Your task to perform on an android device: empty trash in google photos Image 0: 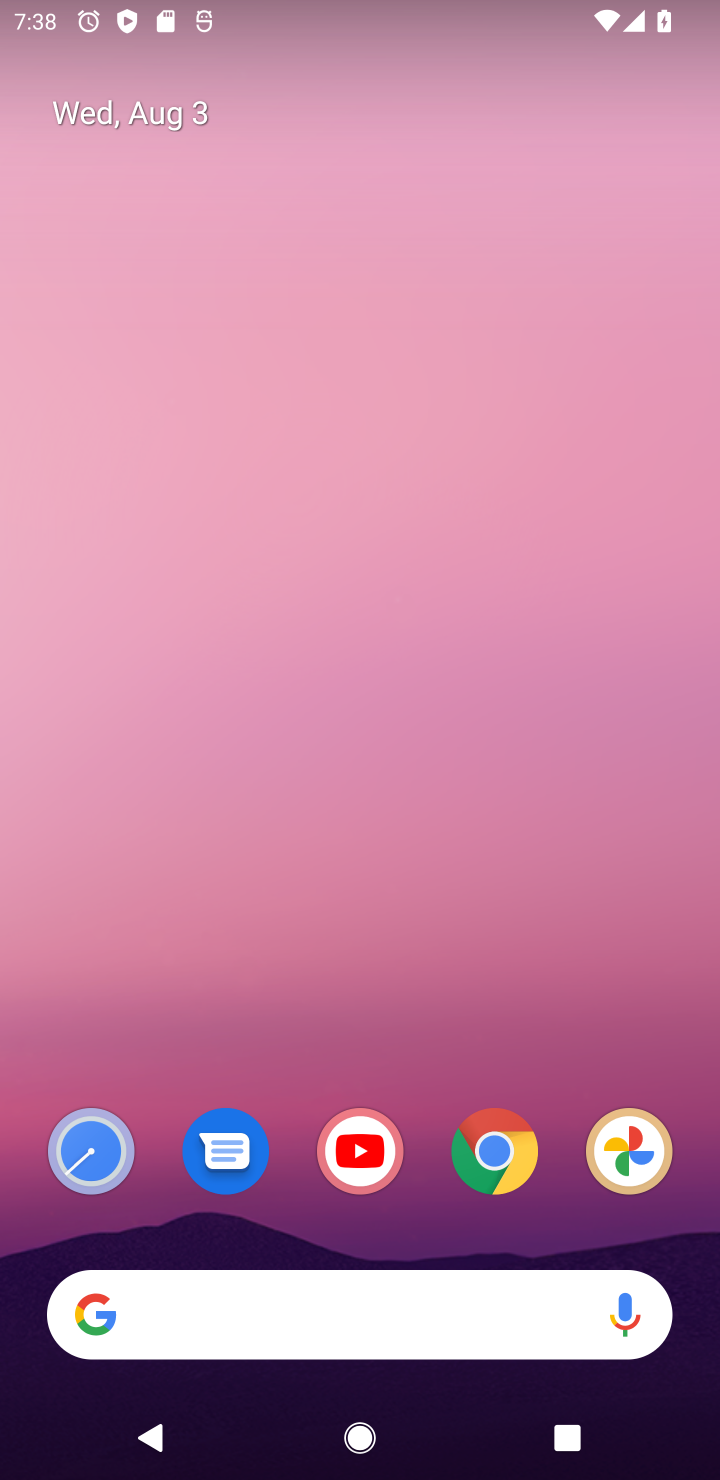
Step 0: click (635, 1159)
Your task to perform on an android device: empty trash in google photos Image 1: 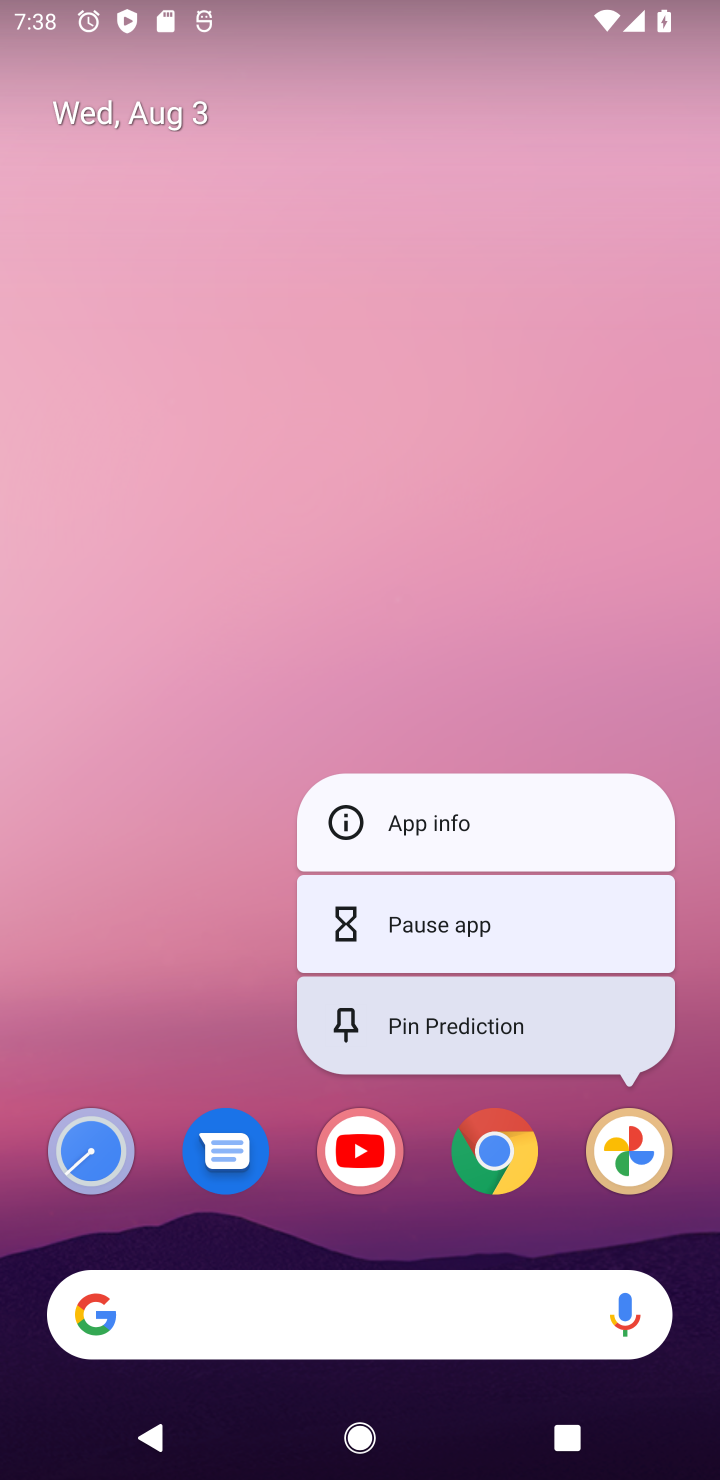
Step 1: click (643, 1141)
Your task to perform on an android device: empty trash in google photos Image 2: 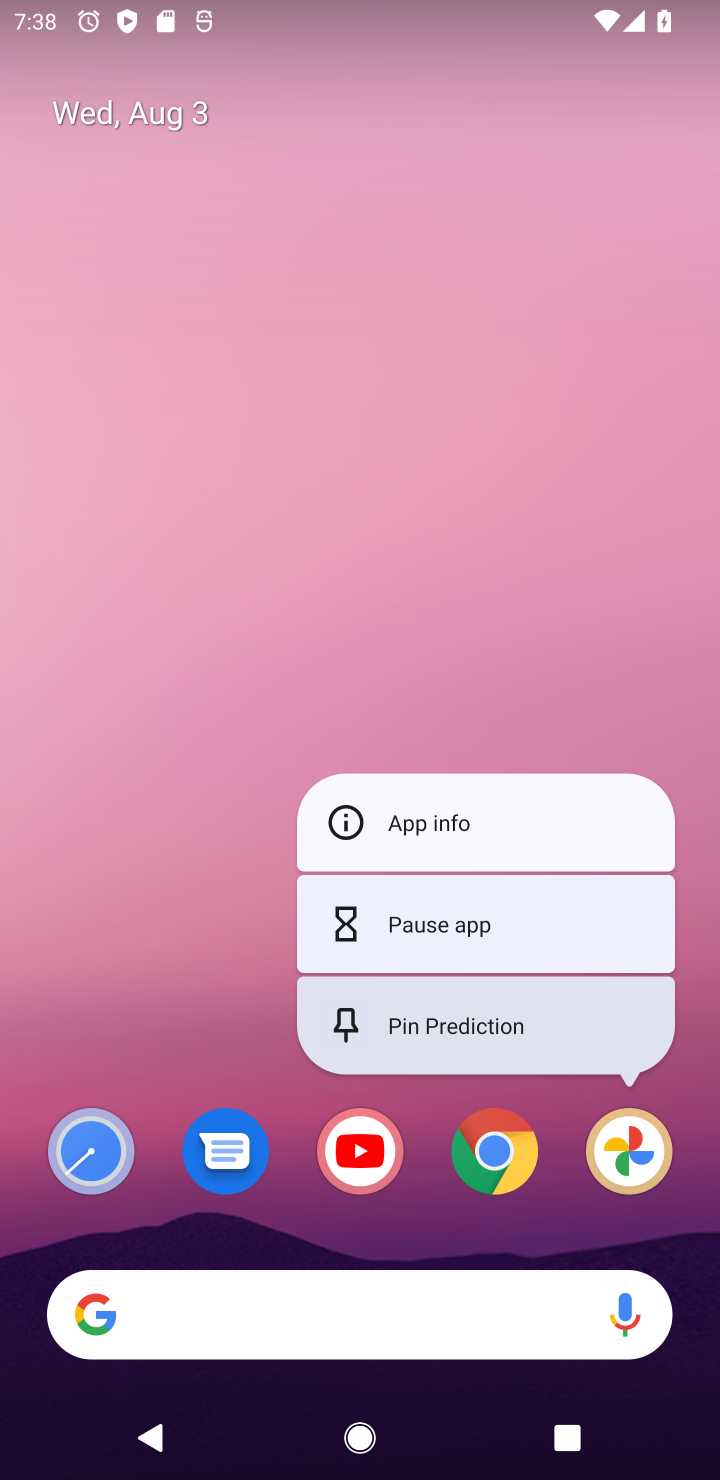
Step 2: click (646, 1139)
Your task to perform on an android device: empty trash in google photos Image 3: 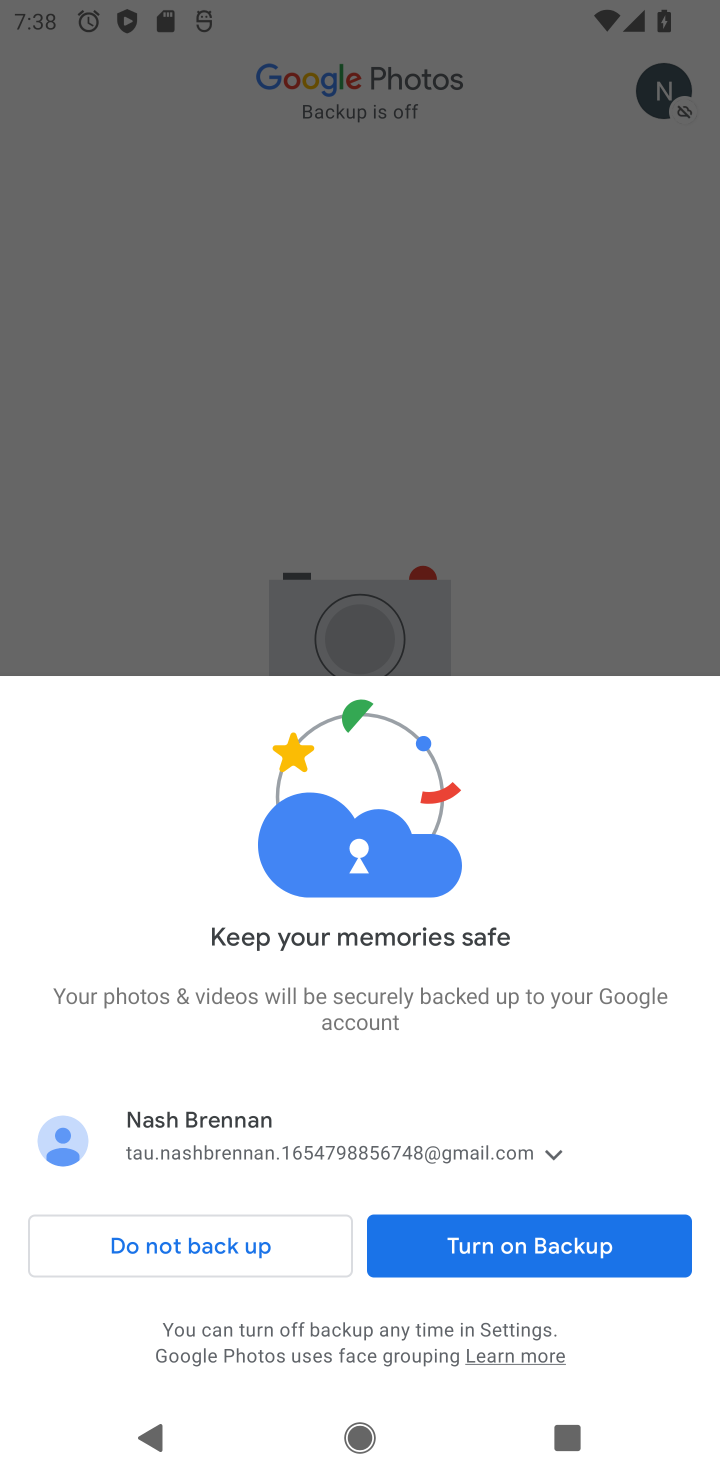
Step 3: click (483, 1246)
Your task to perform on an android device: empty trash in google photos Image 4: 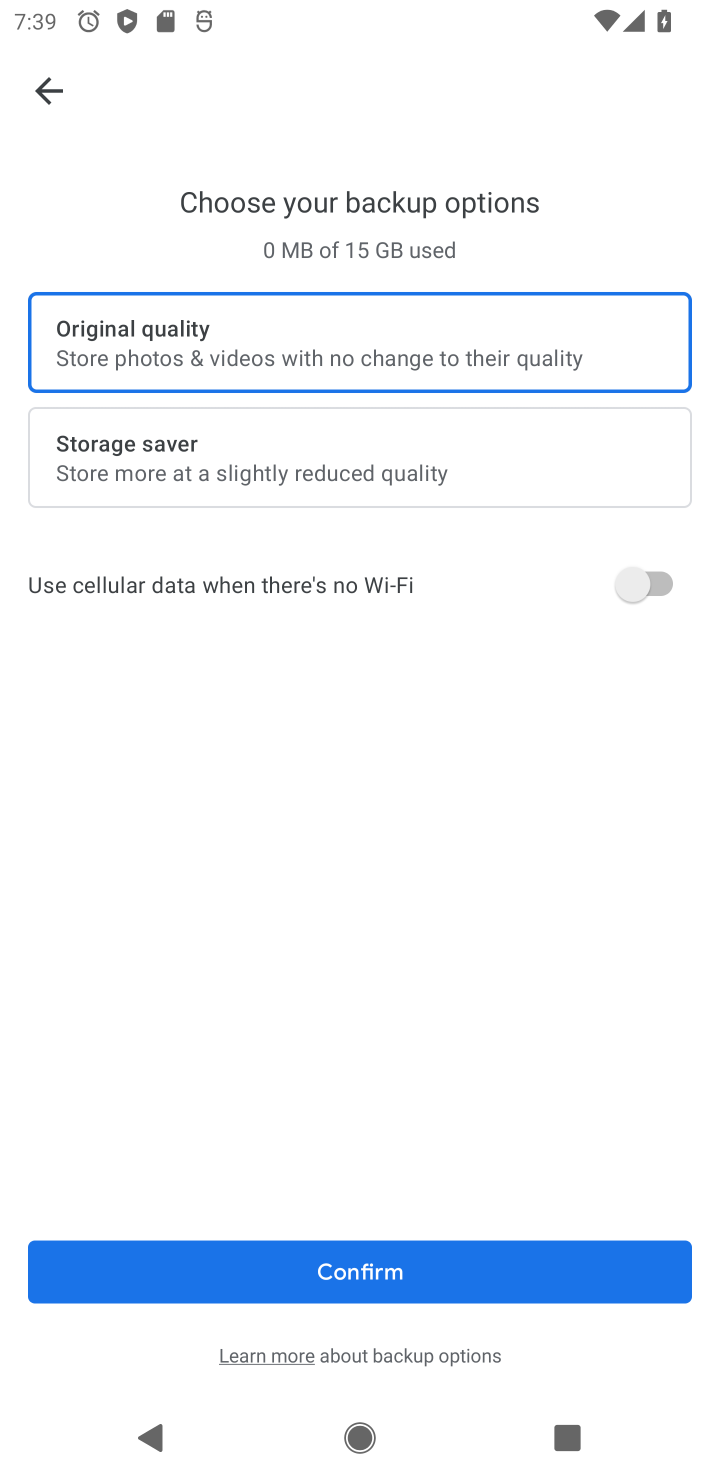
Step 4: click (375, 1280)
Your task to perform on an android device: empty trash in google photos Image 5: 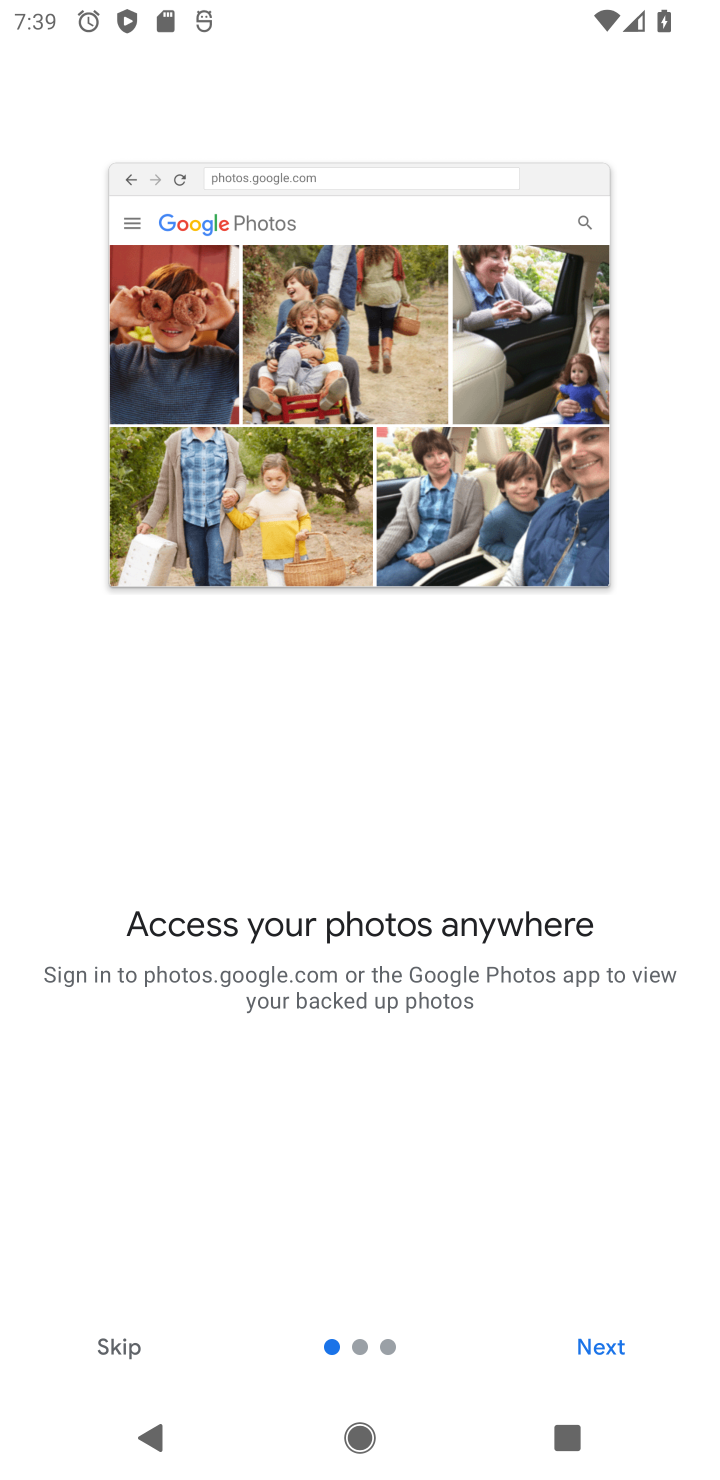
Step 5: click (603, 1343)
Your task to perform on an android device: empty trash in google photos Image 6: 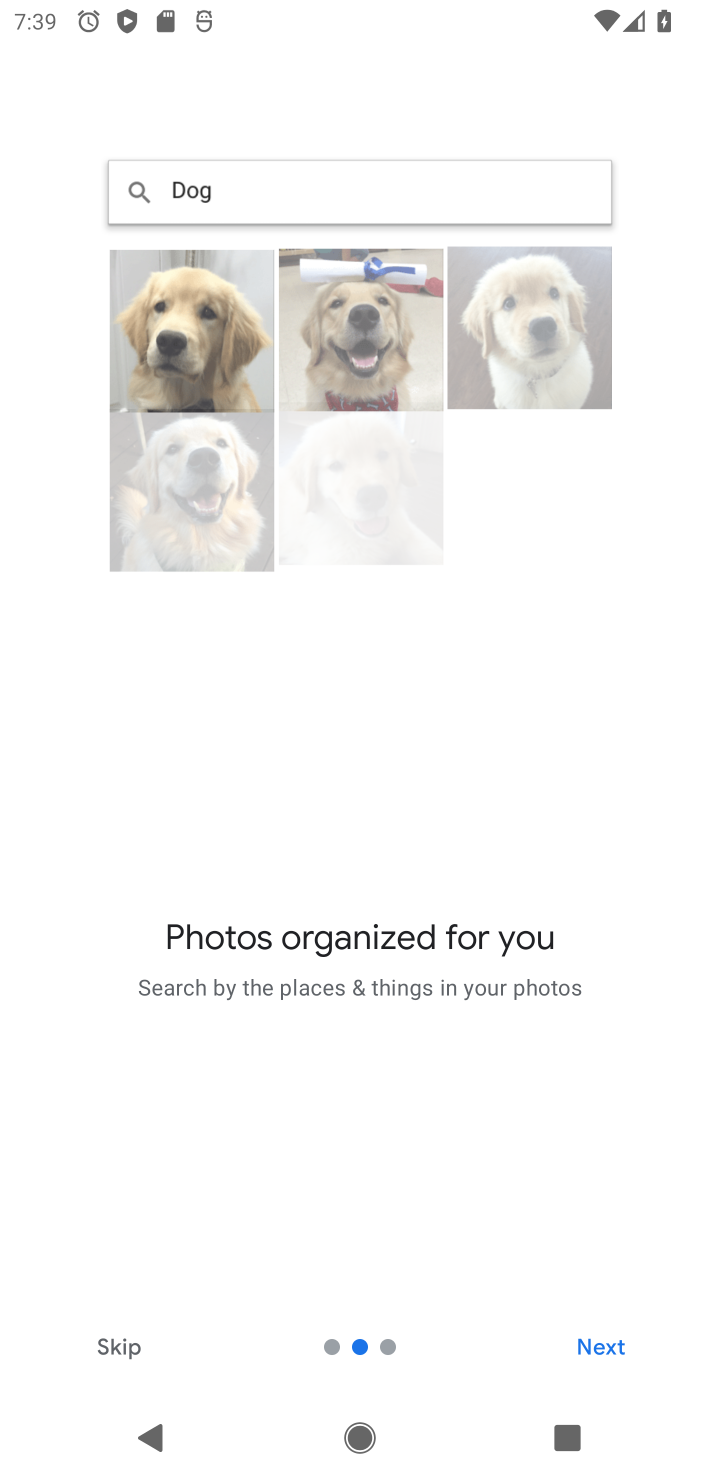
Step 6: click (603, 1344)
Your task to perform on an android device: empty trash in google photos Image 7: 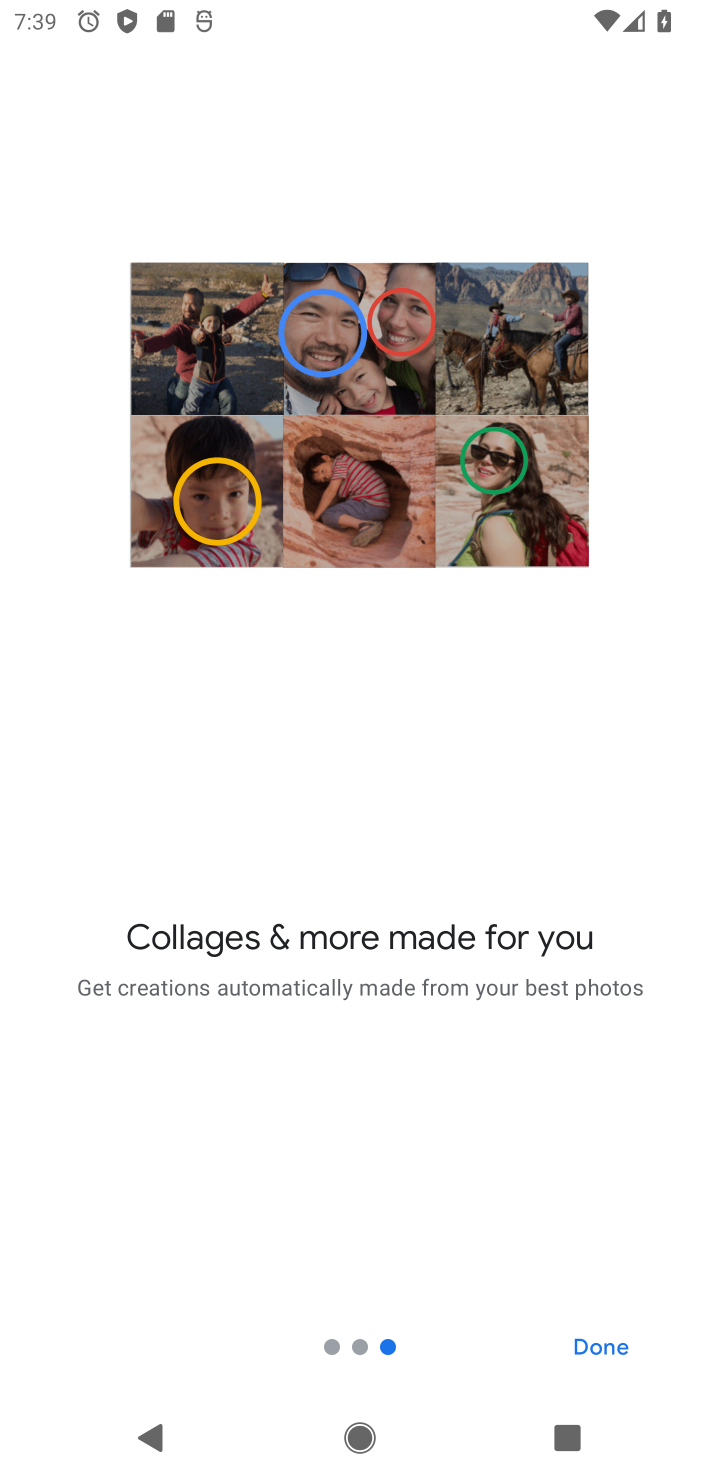
Step 7: click (603, 1344)
Your task to perform on an android device: empty trash in google photos Image 8: 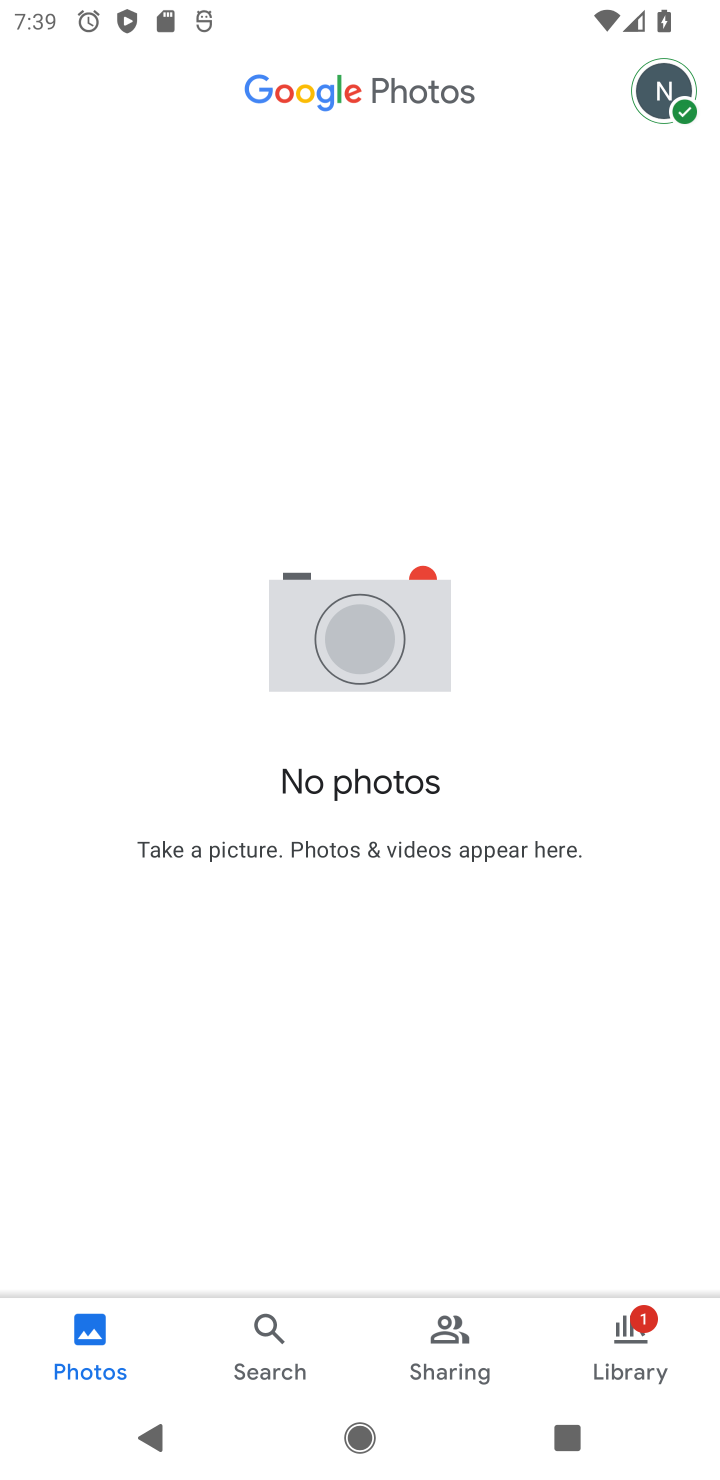
Step 8: click (667, 85)
Your task to perform on an android device: empty trash in google photos Image 9: 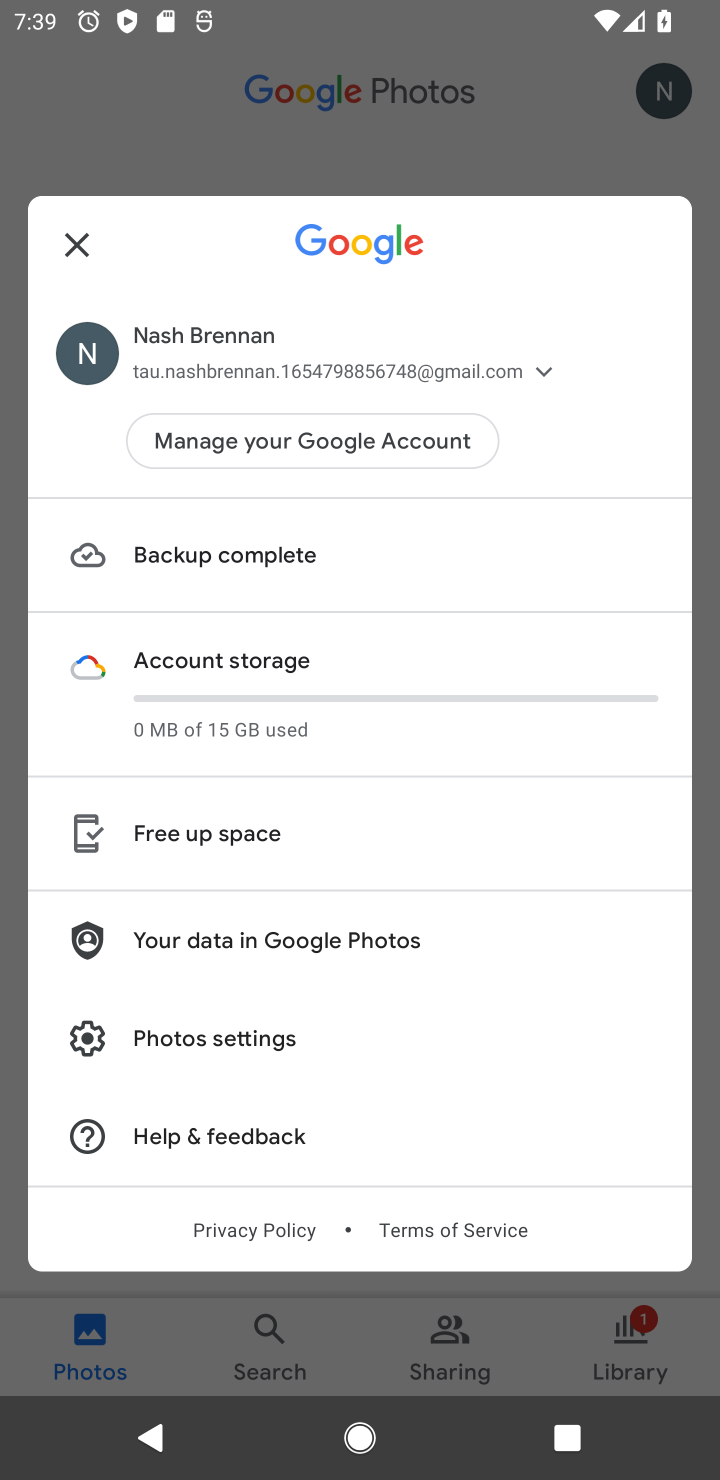
Step 9: click (188, 1038)
Your task to perform on an android device: empty trash in google photos Image 10: 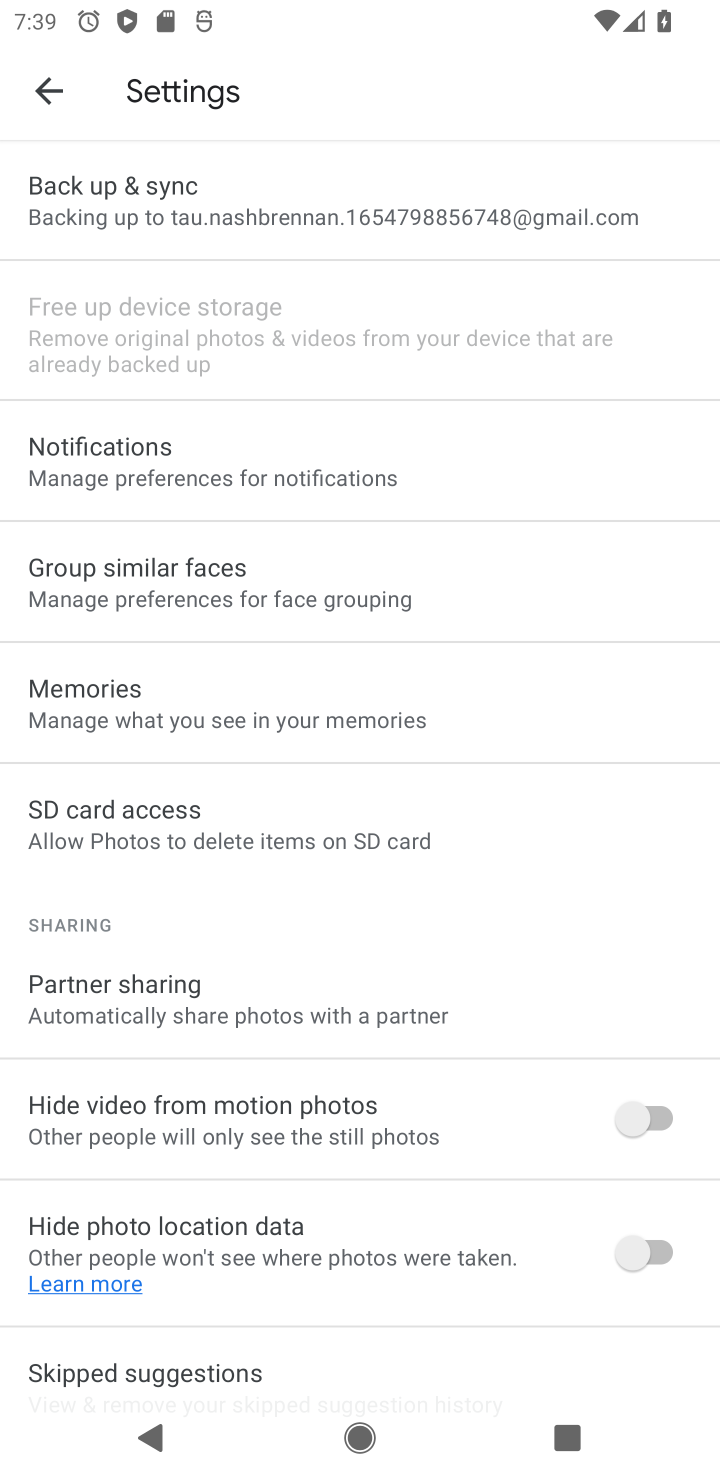
Step 10: task complete